Your task to perform on an android device: Go to network settings Image 0: 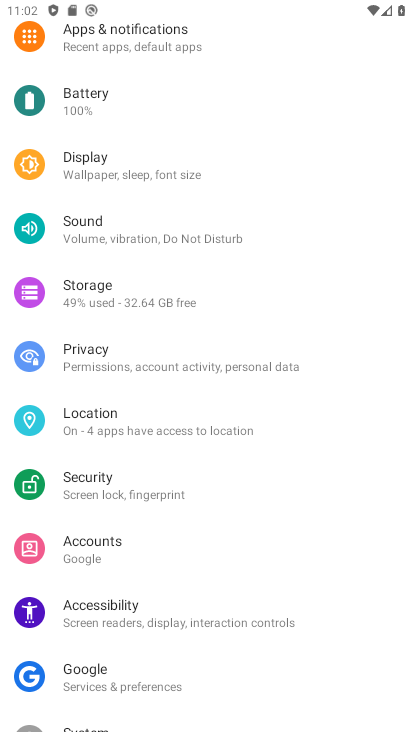
Step 0: drag from (214, 87) to (222, 319)
Your task to perform on an android device: Go to network settings Image 1: 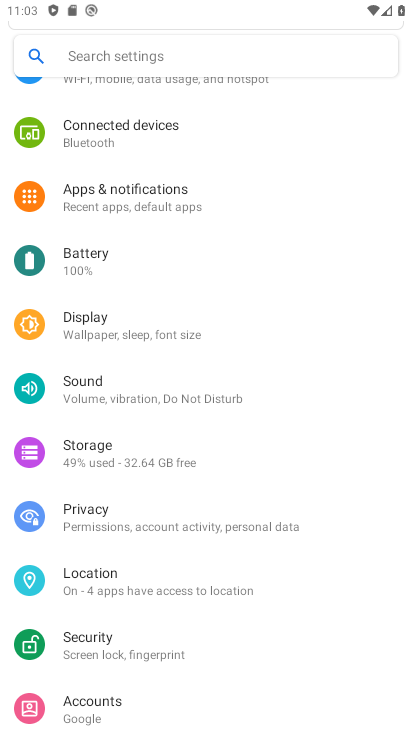
Step 1: click (219, 82)
Your task to perform on an android device: Go to network settings Image 2: 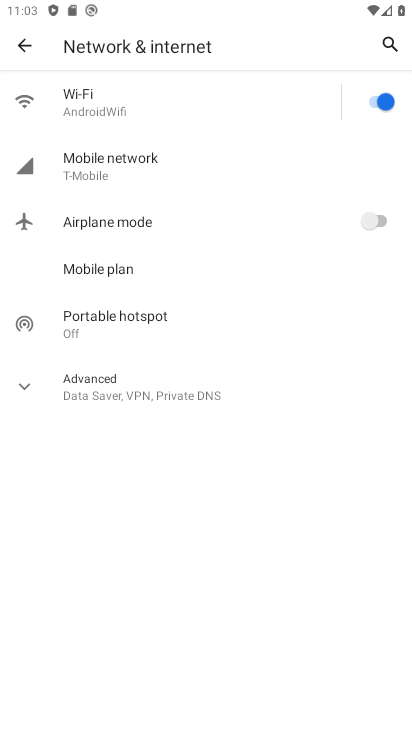
Step 2: click (147, 158)
Your task to perform on an android device: Go to network settings Image 3: 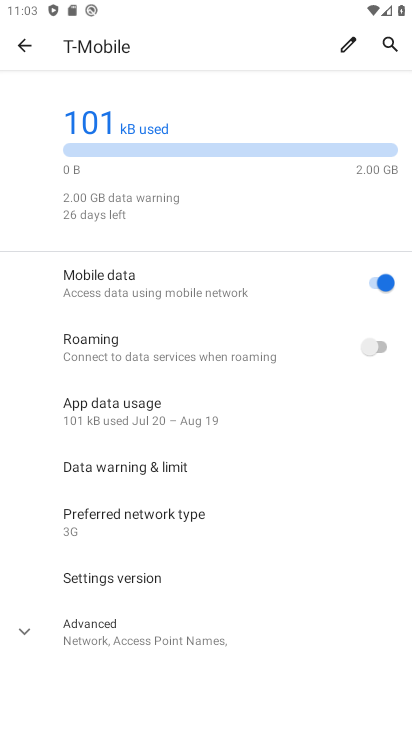
Step 3: task complete